Your task to perform on an android device: Search for Italian restaurants on Maps Image 0: 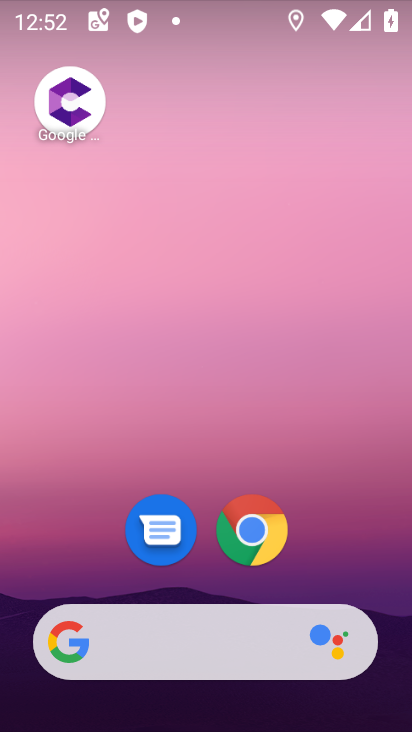
Step 0: press home button
Your task to perform on an android device: Search for Italian restaurants on Maps Image 1: 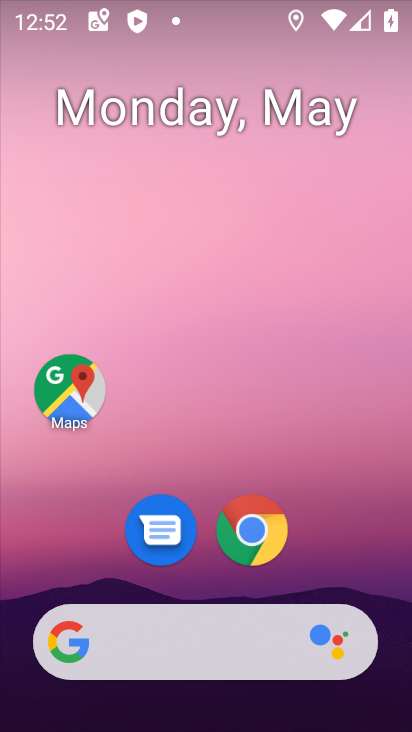
Step 1: click (74, 395)
Your task to perform on an android device: Search for Italian restaurants on Maps Image 2: 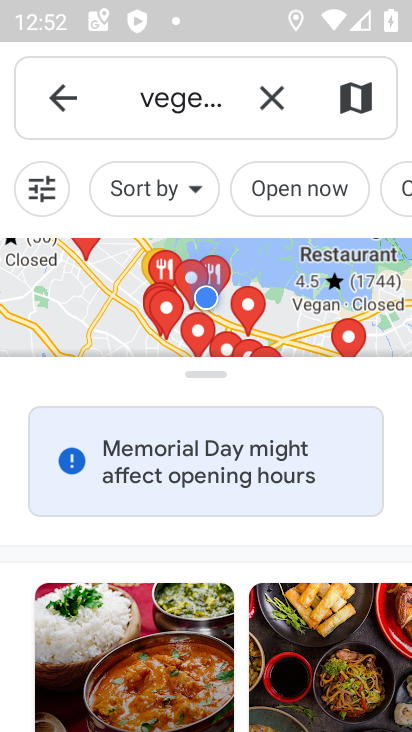
Step 2: click (272, 100)
Your task to perform on an android device: Search for Italian restaurants on Maps Image 3: 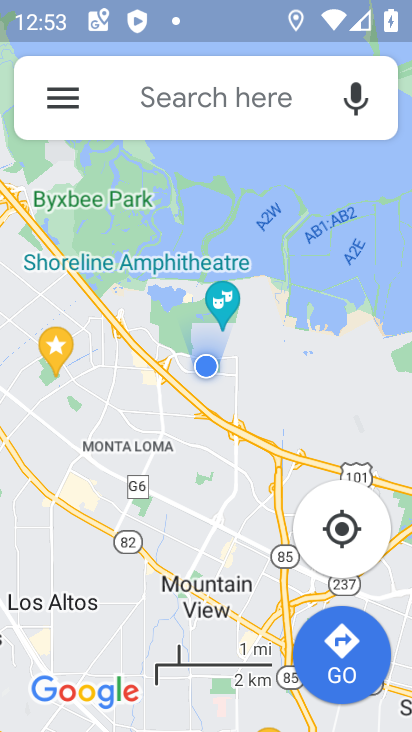
Step 3: click (246, 105)
Your task to perform on an android device: Search for Italian restaurants on Maps Image 4: 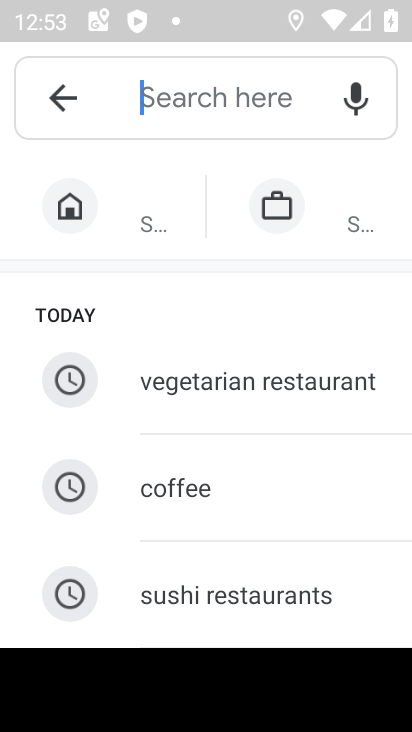
Step 4: type "iralian restaurants"
Your task to perform on an android device: Search for Italian restaurants on Maps Image 5: 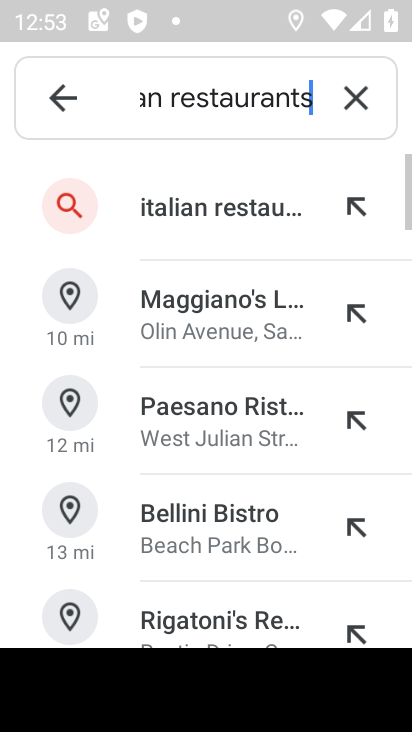
Step 5: click (183, 222)
Your task to perform on an android device: Search for Italian restaurants on Maps Image 6: 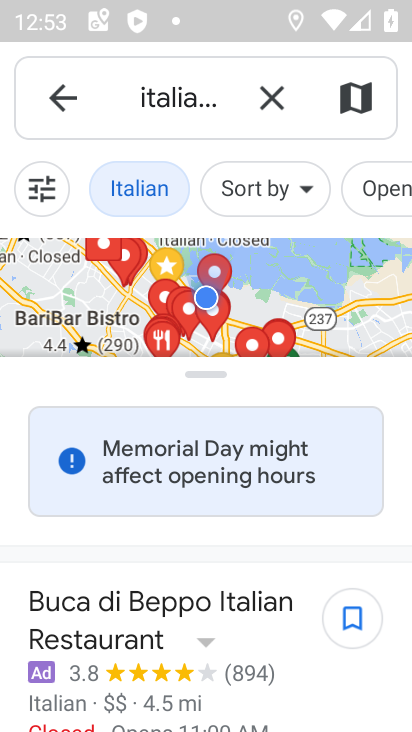
Step 6: task complete